Your task to perform on an android device: Open display settings Image 0: 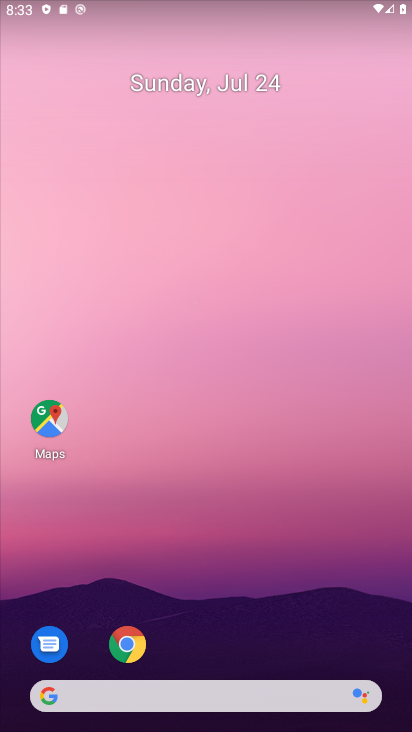
Step 0: drag from (258, 641) to (244, 311)
Your task to perform on an android device: Open display settings Image 1: 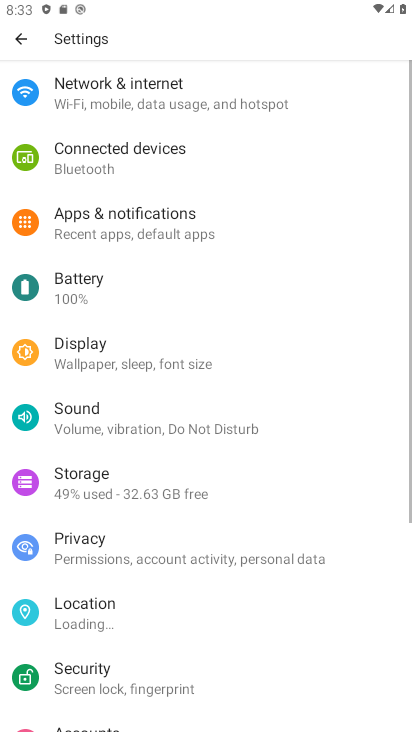
Step 1: click (110, 363)
Your task to perform on an android device: Open display settings Image 2: 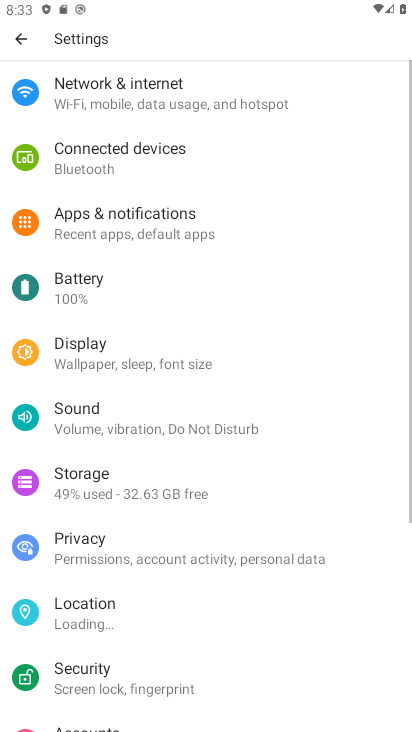
Step 2: click (107, 363)
Your task to perform on an android device: Open display settings Image 3: 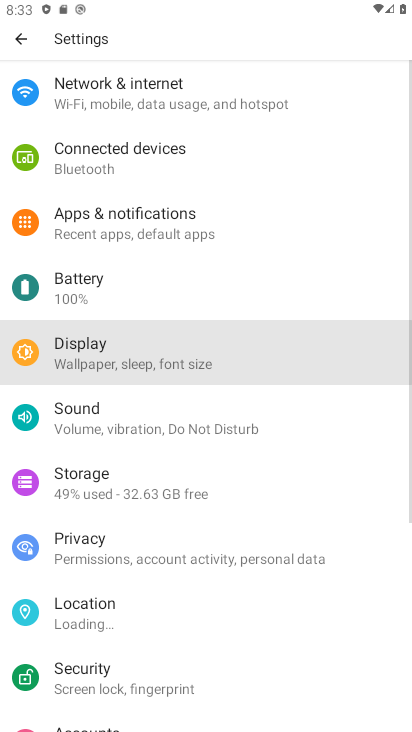
Step 3: click (105, 363)
Your task to perform on an android device: Open display settings Image 4: 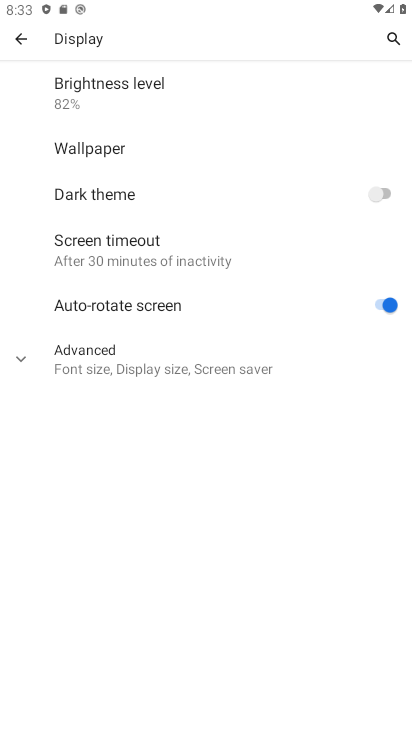
Step 4: task complete